Your task to perform on an android device: Go to network settings Image 0: 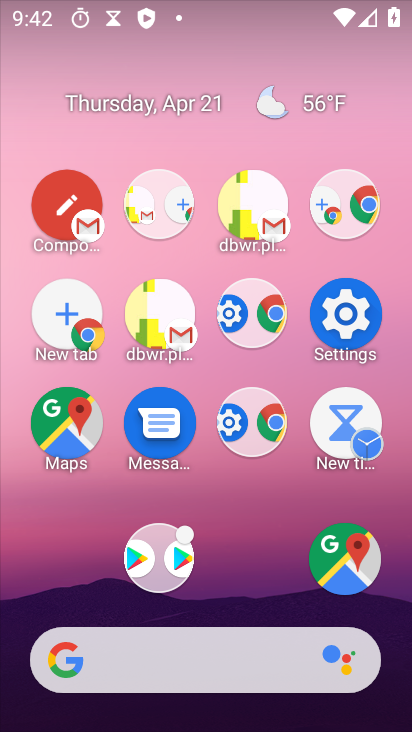
Step 0: drag from (259, 629) to (164, 173)
Your task to perform on an android device: Go to network settings Image 1: 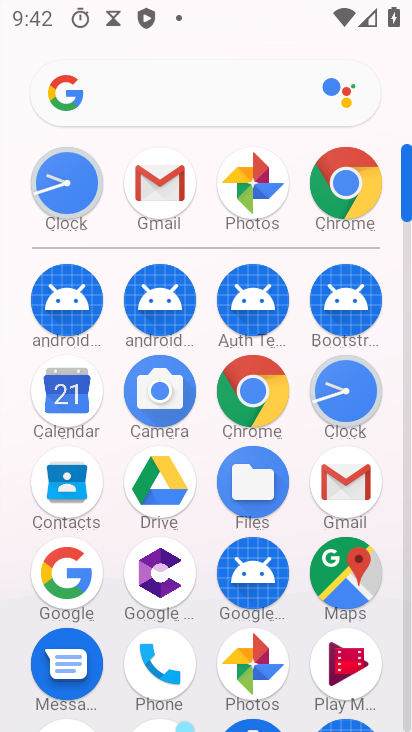
Step 1: drag from (387, 559) to (327, 127)
Your task to perform on an android device: Go to network settings Image 2: 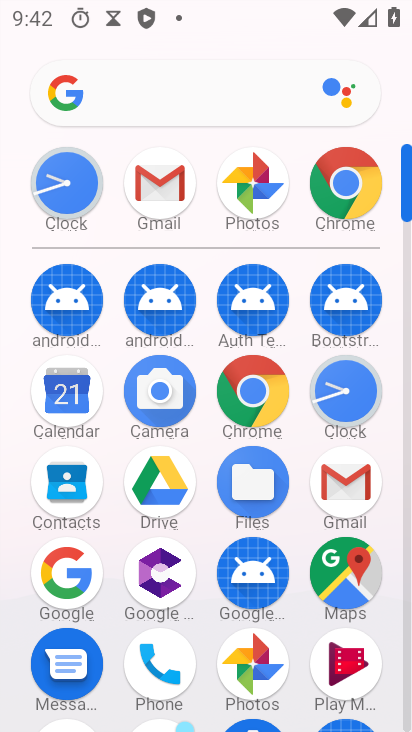
Step 2: drag from (376, 396) to (402, 13)
Your task to perform on an android device: Go to network settings Image 3: 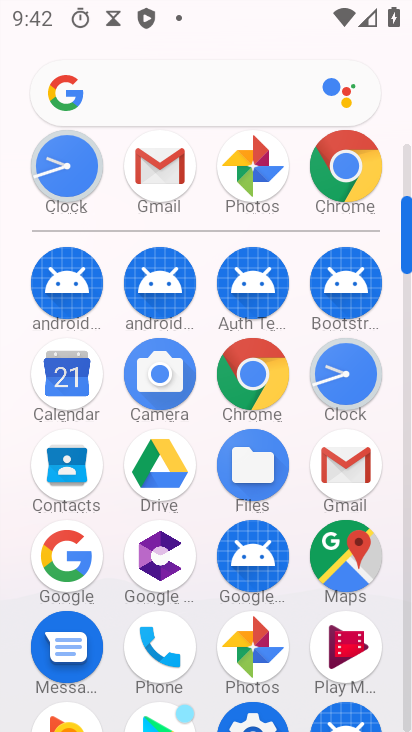
Step 3: drag from (391, 510) to (368, 51)
Your task to perform on an android device: Go to network settings Image 4: 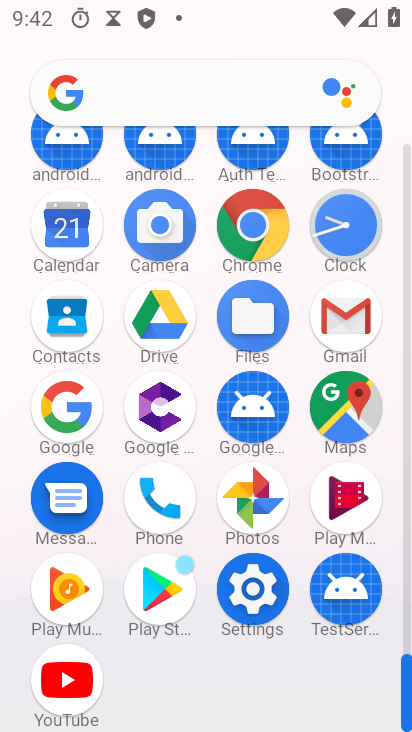
Step 4: click (255, 592)
Your task to perform on an android device: Go to network settings Image 5: 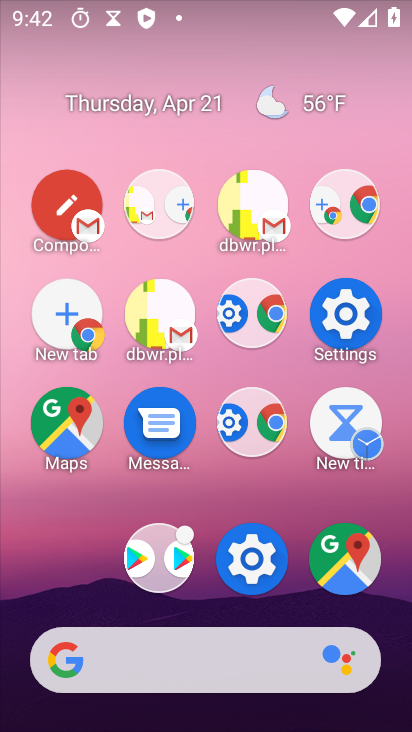
Step 5: click (252, 561)
Your task to perform on an android device: Go to network settings Image 6: 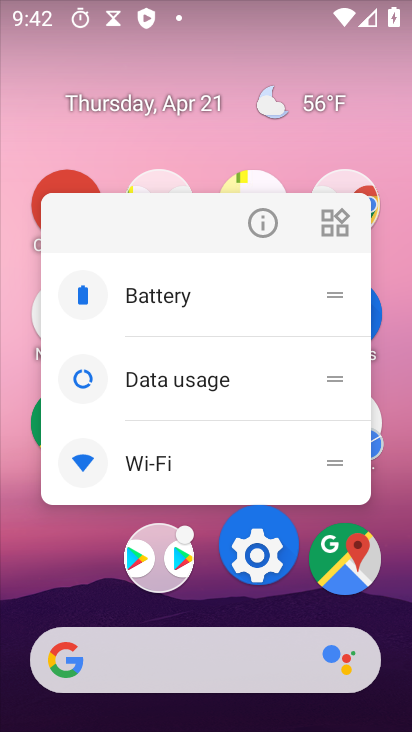
Step 6: click (258, 537)
Your task to perform on an android device: Go to network settings Image 7: 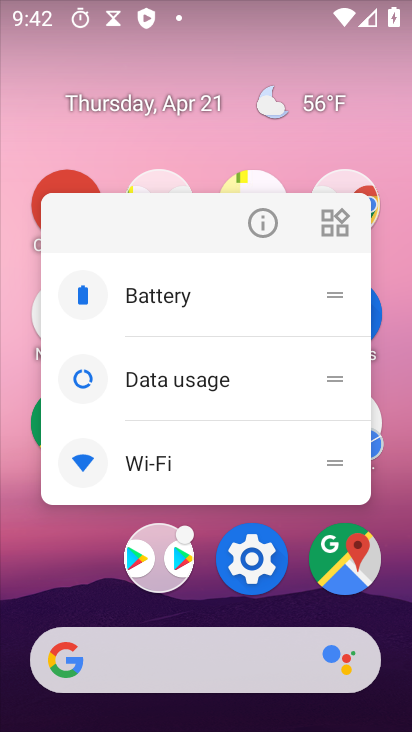
Step 7: click (256, 535)
Your task to perform on an android device: Go to network settings Image 8: 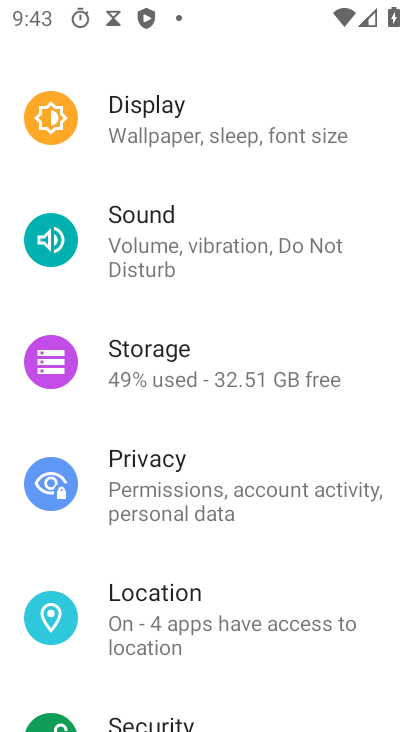
Step 8: drag from (283, 219) to (337, 559)
Your task to perform on an android device: Go to network settings Image 9: 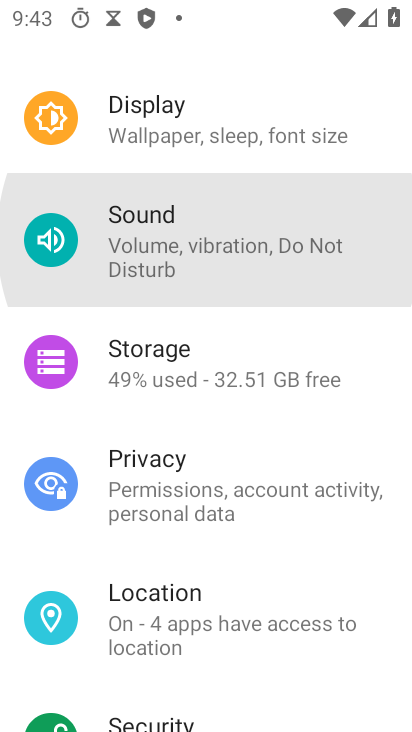
Step 9: drag from (223, 318) to (249, 516)
Your task to perform on an android device: Go to network settings Image 10: 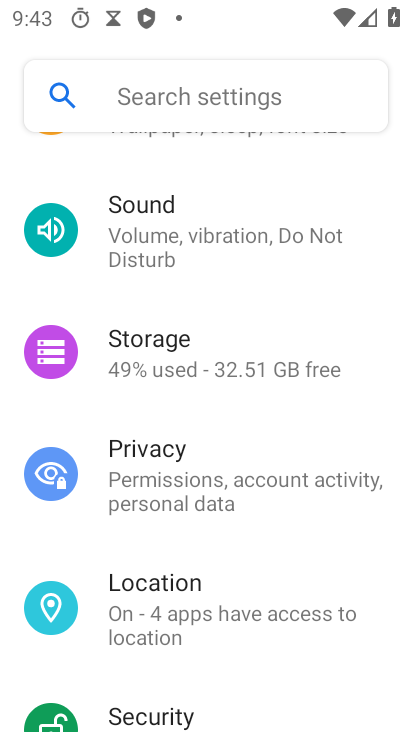
Step 10: drag from (225, 299) to (224, 448)
Your task to perform on an android device: Go to network settings Image 11: 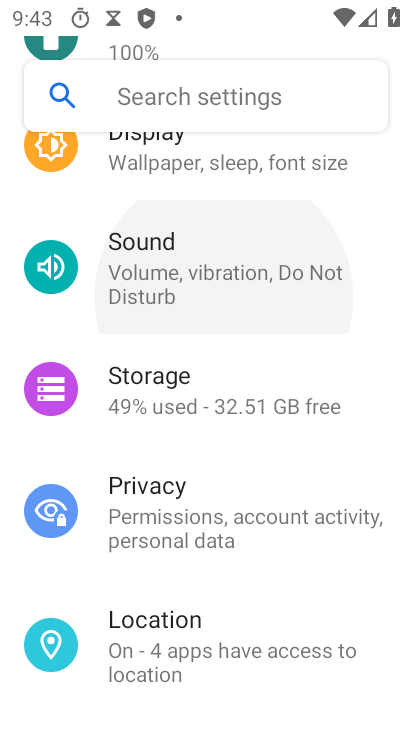
Step 11: drag from (212, 246) to (184, 492)
Your task to perform on an android device: Go to network settings Image 12: 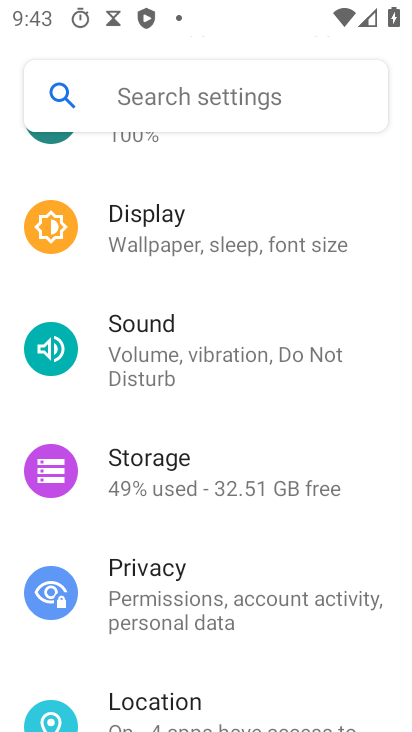
Step 12: drag from (181, 283) to (170, 527)
Your task to perform on an android device: Go to network settings Image 13: 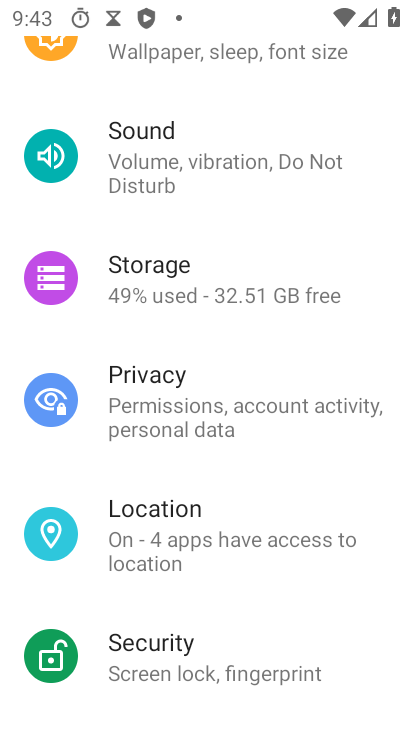
Step 13: drag from (140, 274) to (17, 251)
Your task to perform on an android device: Go to network settings Image 14: 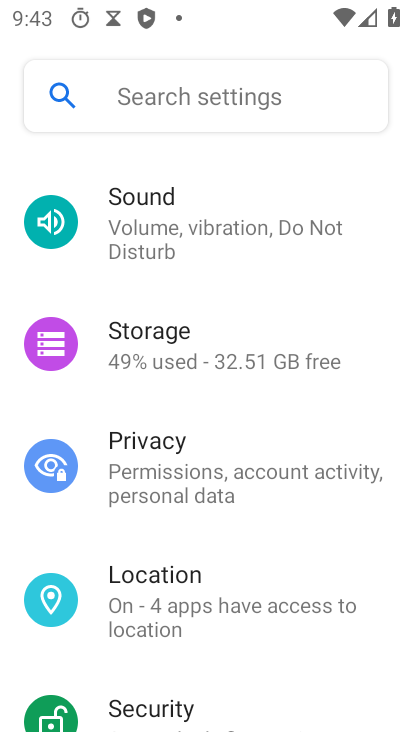
Step 14: drag from (198, 238) to (284, 500)
Your task to perform on an android device: Go to network settings Image 15: 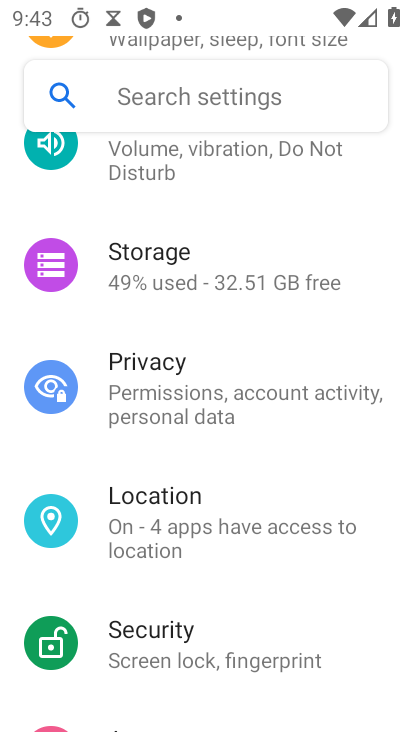
Step 15: drag from (158, 218) to (228, 478)
Your task to perform on an android device: Go to network settings Image 16: 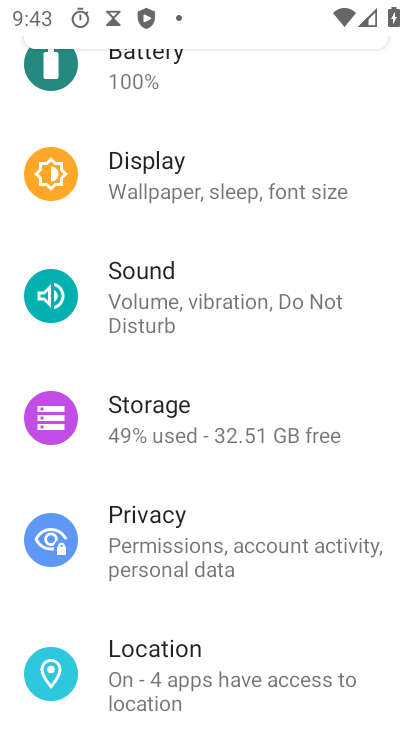
Step 16: drag from (215, 343) to (256, 430)
Your task to perform on an android device: Go to network settings Image 17: 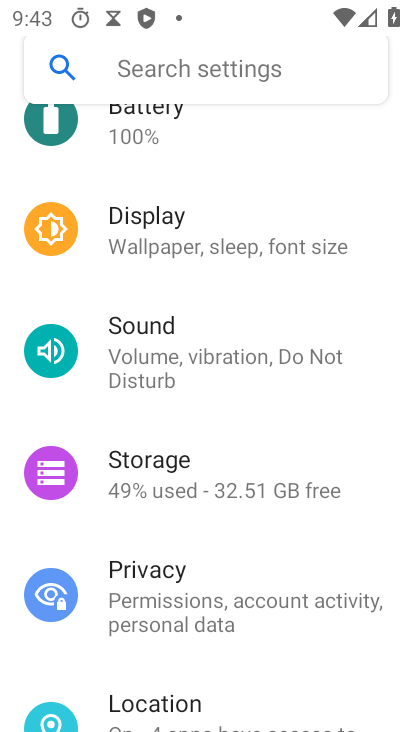
Step 17: drag from (220, 282) to (225, 432)
Your task to perform on an android device: Go to network settings Image 18: 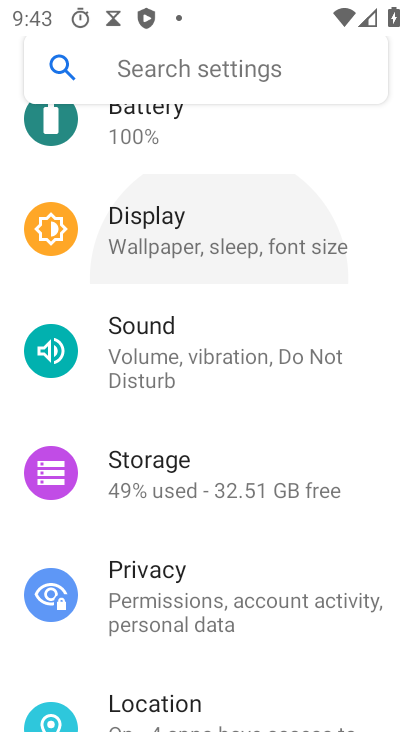
Step 18: drag from (220, 280) to (204, 442)
Your task to perform on an android device: Go to network settings Image 19: 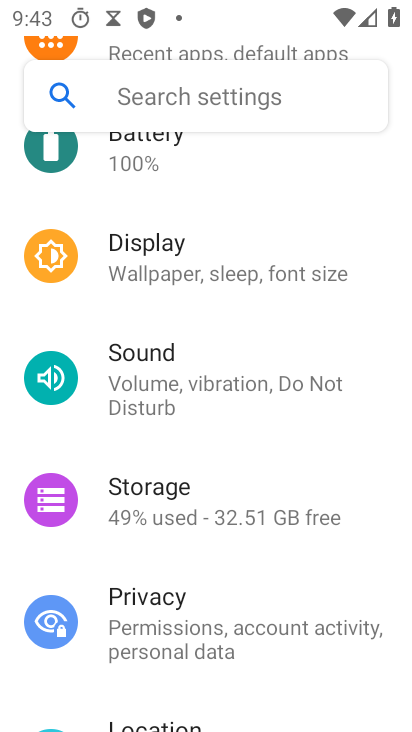
Step 19: drag from (196, 295) to (204, 447)
Your task to perform on an android device: Go to network settings Image 20: 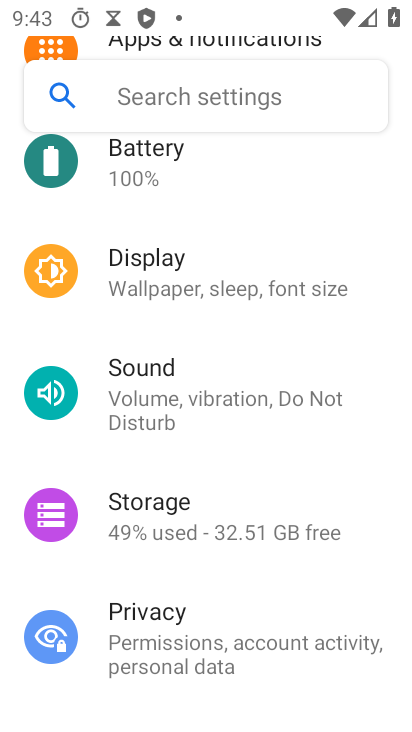
Step 20: drag from (217, 350) to (211, 513)
Your task to perform on an android device: Go to network settings Image 21: 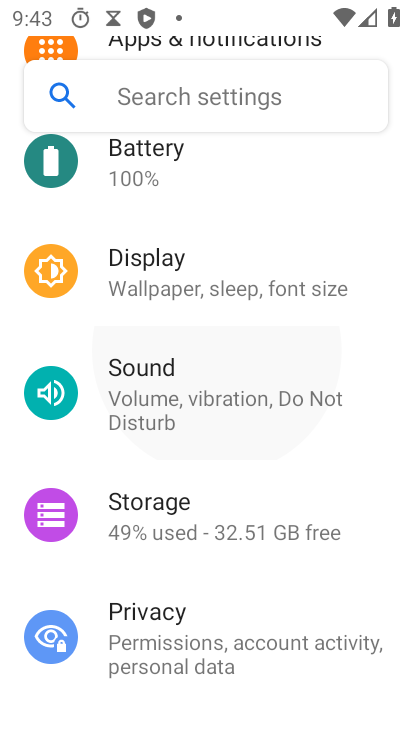
Step 21: drag from (191, 326) to (227, 500)
Your task to perform on an android device: Go to network settings Image 22: 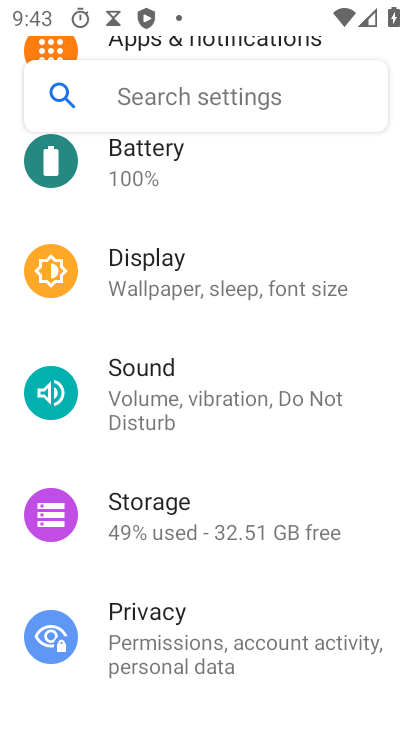
Step 22: drag from (209, 238) to (234, 395)
Your task to perform on an android device: Go to network settings Image 23: 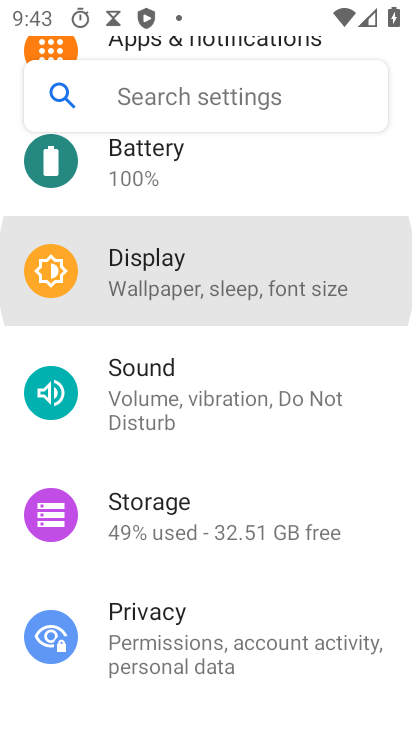
Step 23: click (199, 227)
Your task to perform on an android device: Go to network settings Image 24: 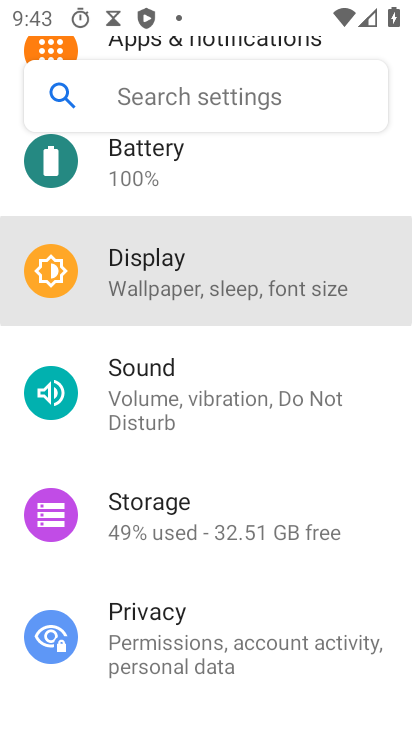
Step 24: drag from (186, 224) to (215, 380)
Your task to perform on an android device: Go to network settings Image 25: 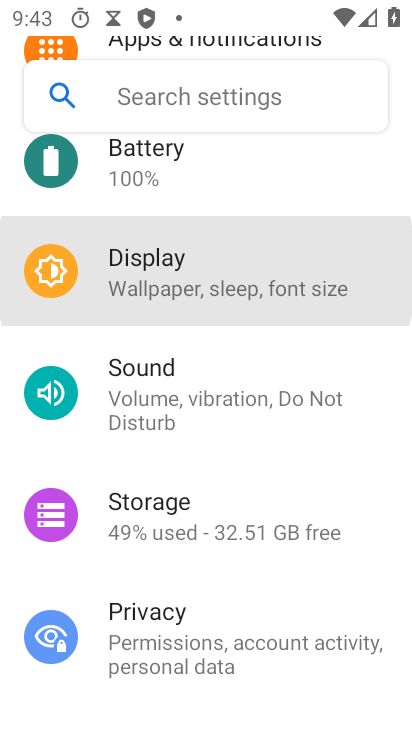
Step 25: drag from (193, 259) to (210, 415)
Your task to perform on an android device: Go to network settings Image 26: 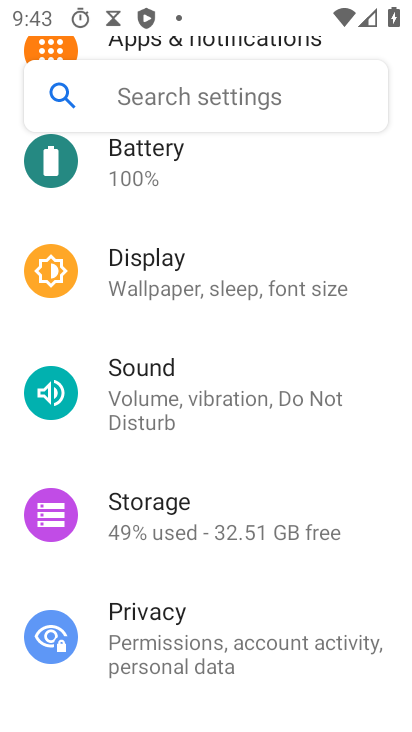
Step 26: drag from (183, 203) to (203, 453)
Your task to perform on an android device: Go to network settings Image 27: 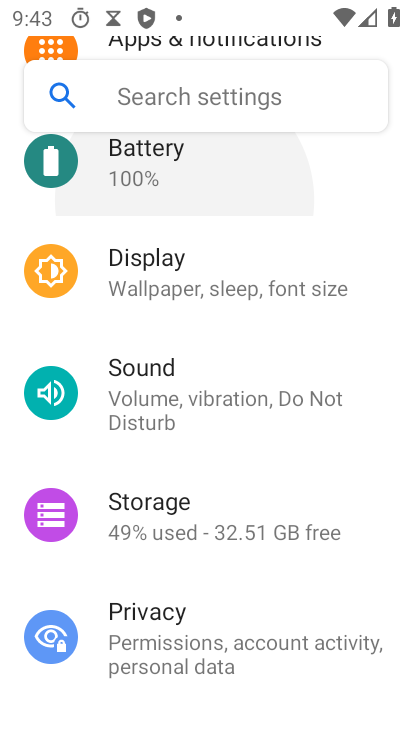
Step 27: drag from (185, 233) to (251, 462)
Your task to perform on an android device: Go to network settings Image 28: 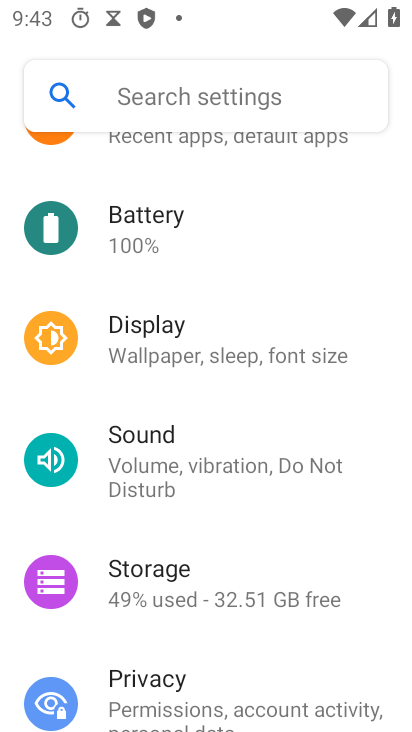
Step 28: drag from (223, 290) to (366, 455)
Your task to perform on an android device: Go to network settings Image 29: 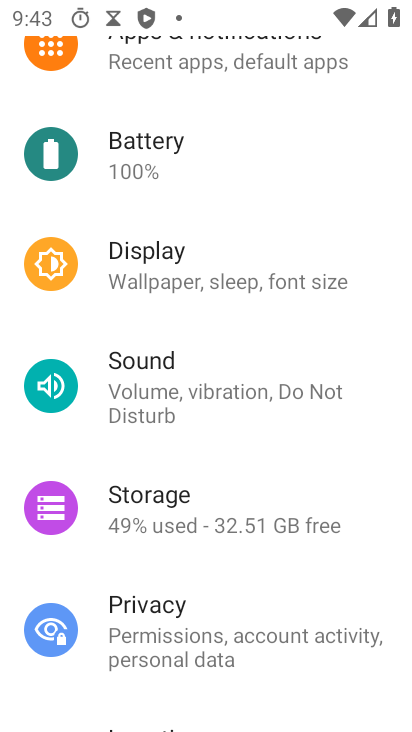
Step 29: drag from (267, 481) to (233, 667)
Your task to perform on an android device: Go to network settings Image 30: 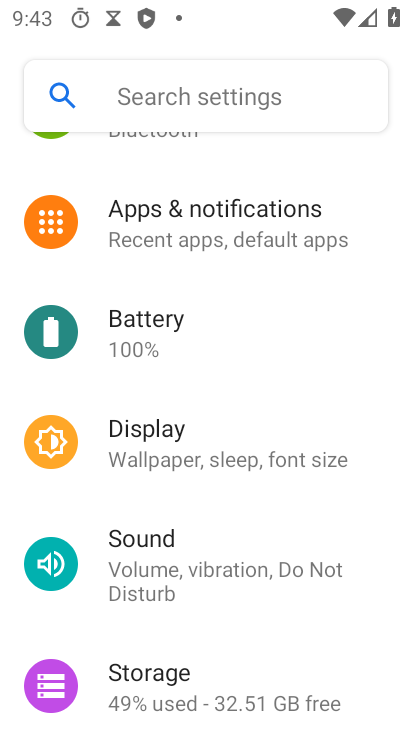
Step 30: drag from (187, 272) to (255, 595)
Your task to perform on an android device: Go to network settings Image 31: 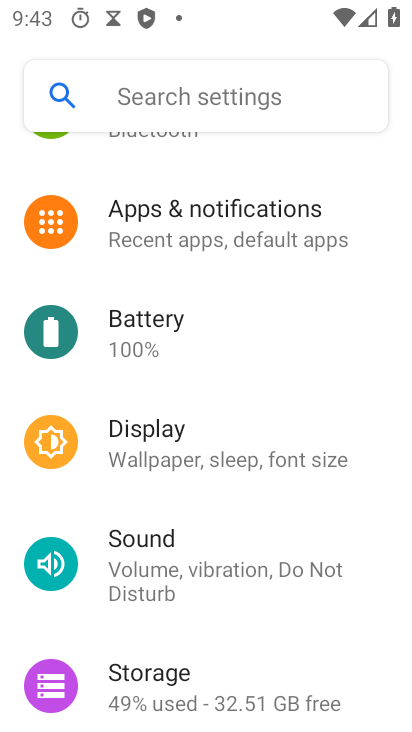
Step 31: drag from (199, 205) to (255, 437)
Your task to perform on an android device: Go to network settings Image 32: 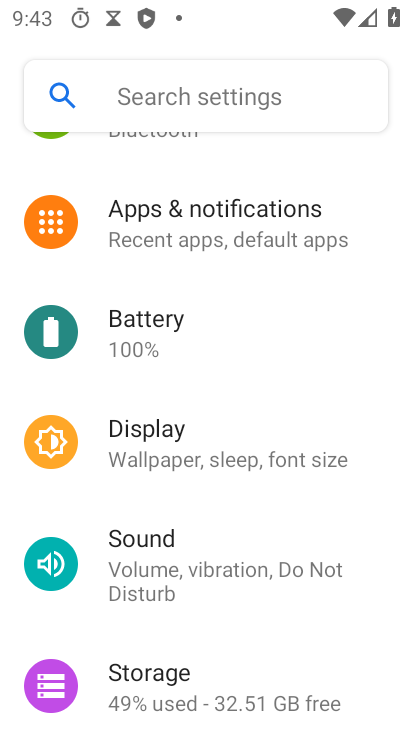
Step 32: drag from (228, 221) to (241, 426)
Your task to perform on an android device: Go to network settings Image 33: 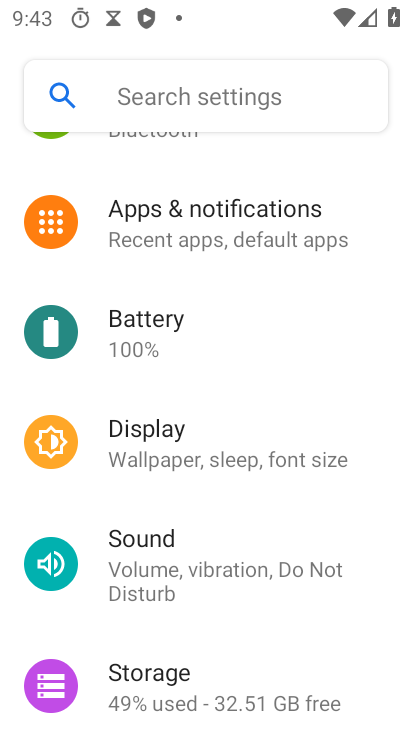
Step 33: drag from (222, 225) to (231, 438)
Your task to perform on an android device: Go to network settings Image 34: 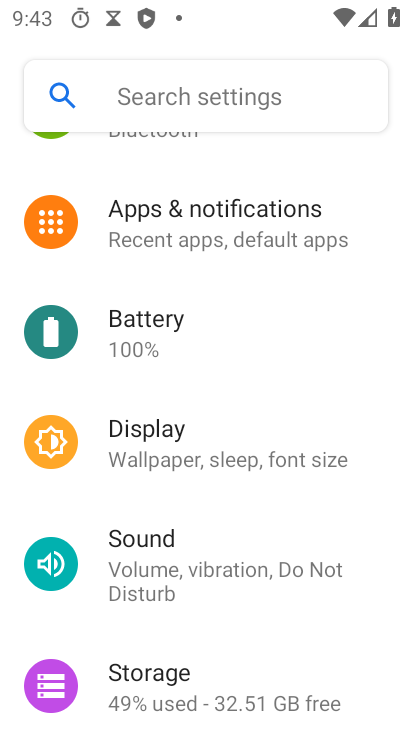
Step 34: drag from (222, 286) to (240, 491)
Your task to perform on an android device: Go to network settings Image 35: 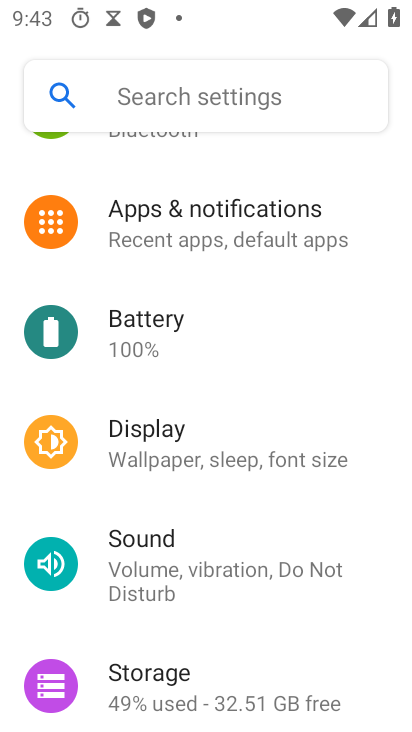
Step 35: drag from (283, 245) to (276, 439)
Your task to perform on an android device: Go to network settings Image 36: 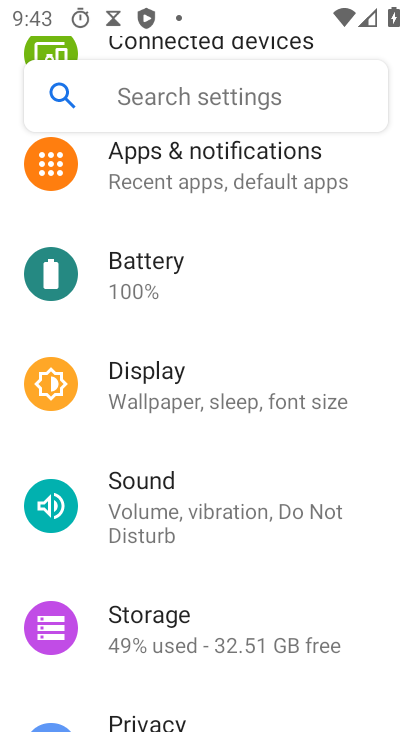
Step 36: drag from (187, 247) to (235, 507)
Your task to perform on an android device: Go to network settings Image 37: 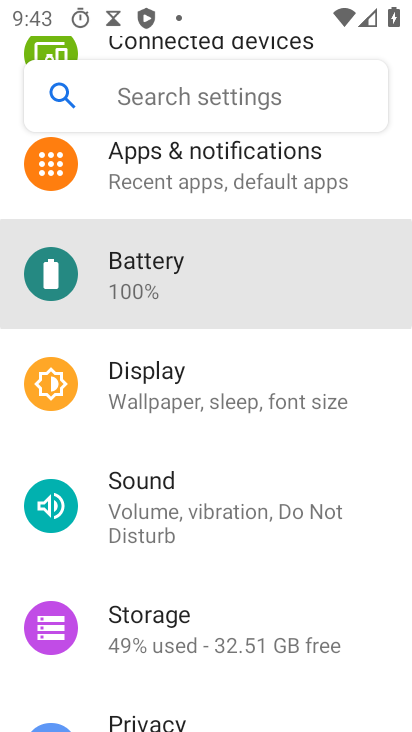
Step 37: drag from (226, 217) to (238, 532)
Your task to perform on an android device: Go to network settings Image 38: 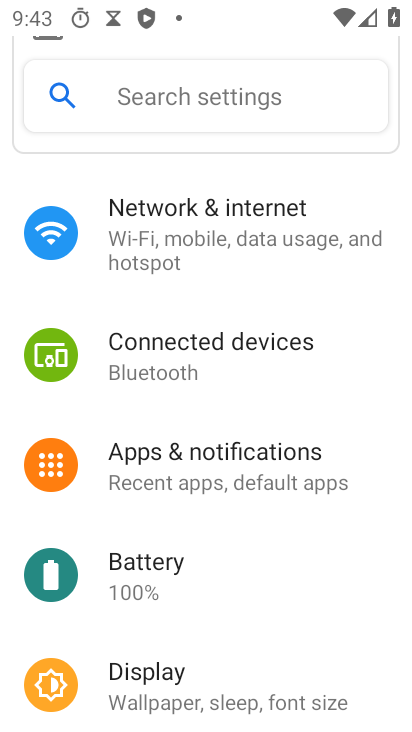
Step 38: click (236, 233)
Your task to perform on an android device: Go to network settings Image 39: 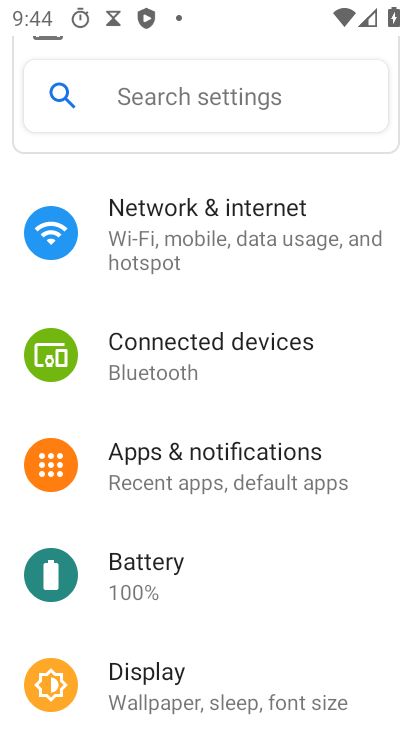
Step 39: click (261, 227)
Your task to perform on an android device: Go to network settings Image 40: 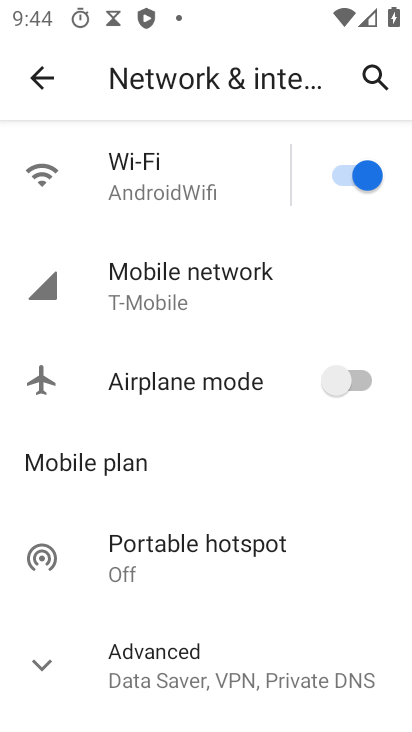
Step 40: click (43, 76)
Your task to perform on an android device: Go to network settings Image 41: 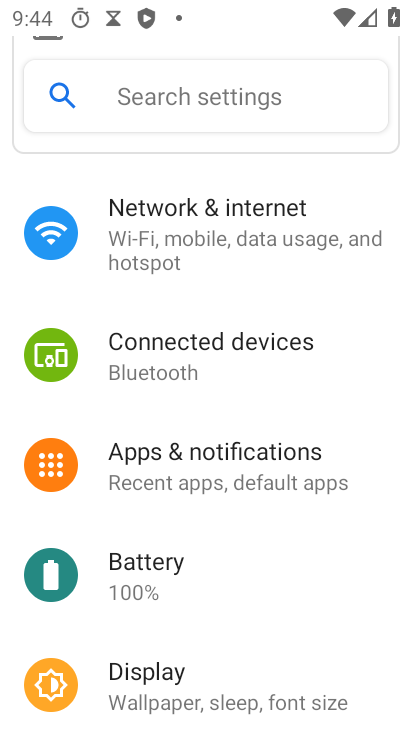
Step 41: task complete